Your task to perform on an android device: turn on wifi Image 0: 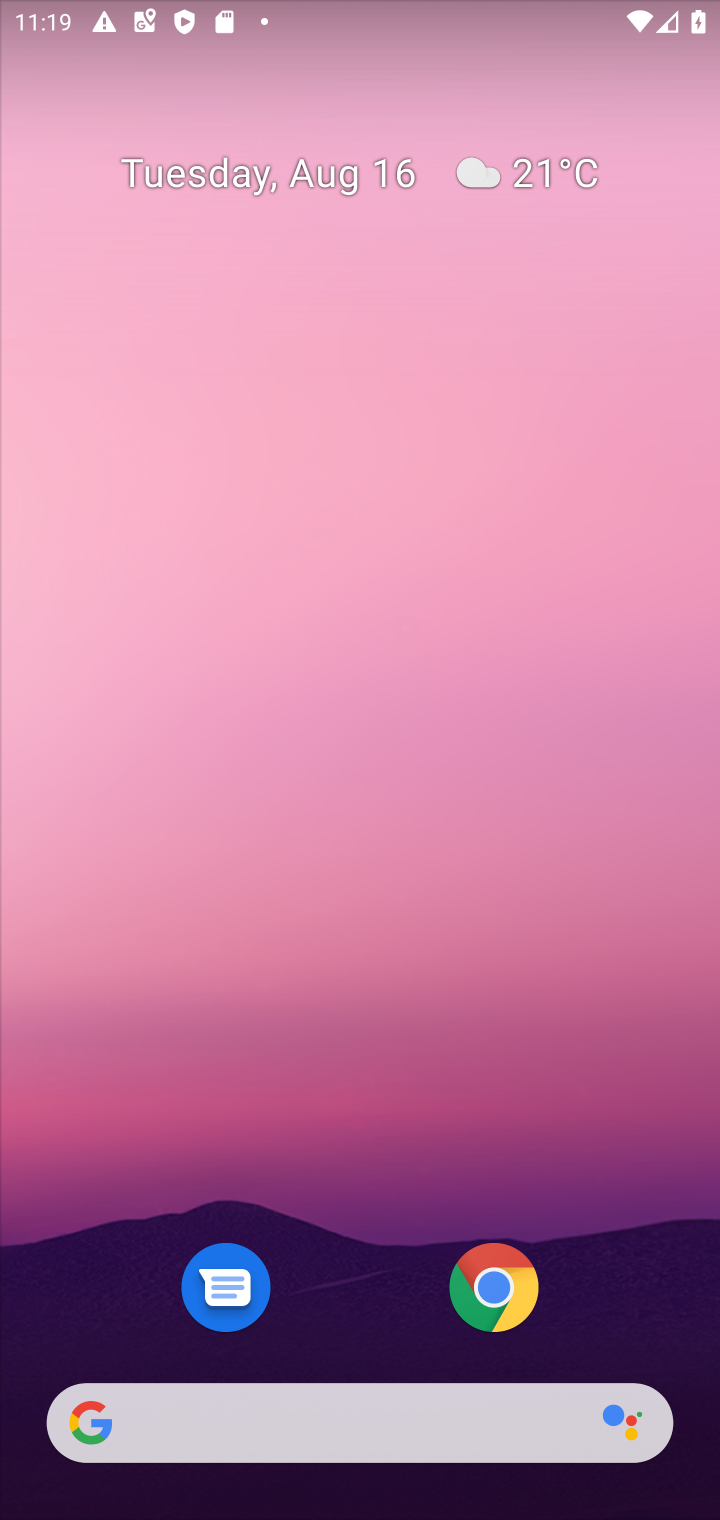
Step 0: drag from (633, 1311) to (548, 386)
Your task to perform on an android device: turn on wifi Image 1: 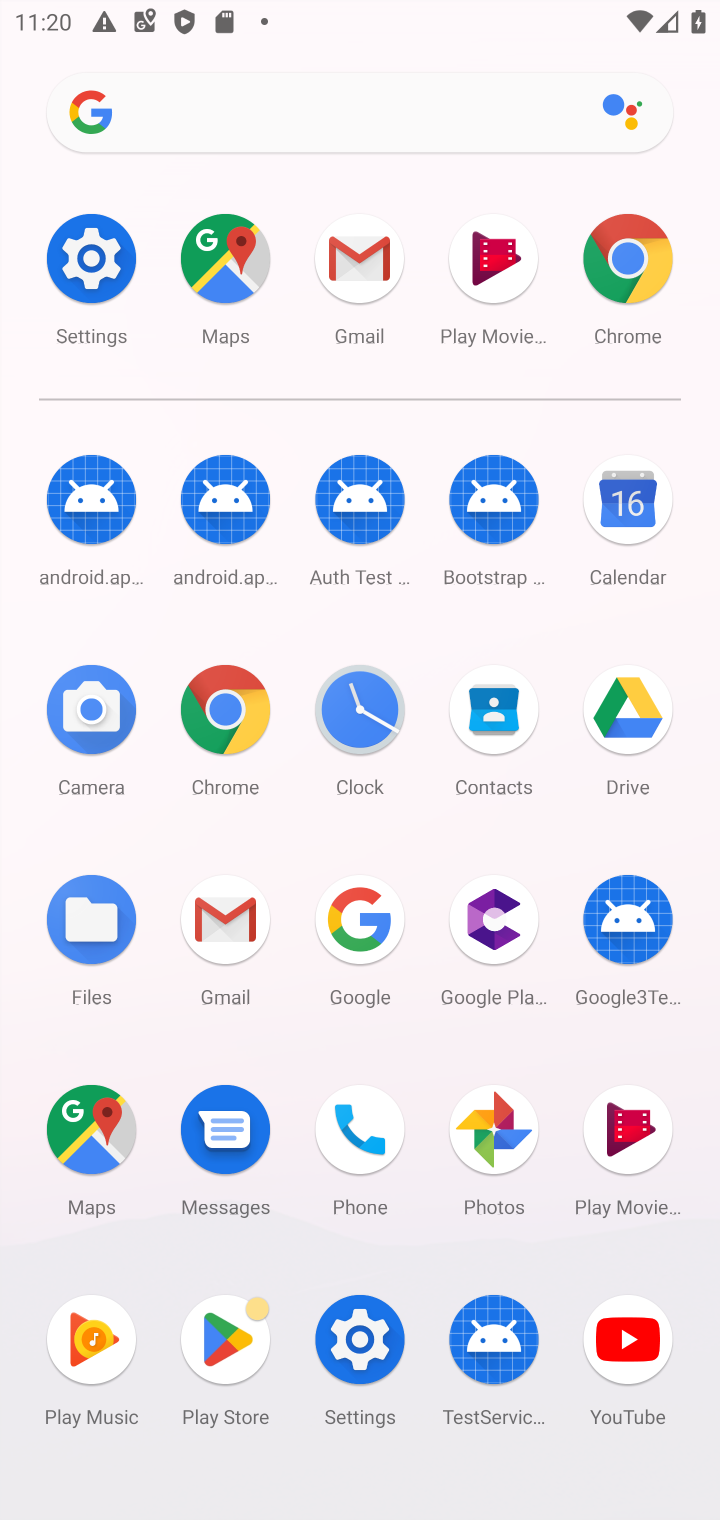
Step 1: click (359, 1336)
Your task to perform on an android device: turn on wifi Image 2: 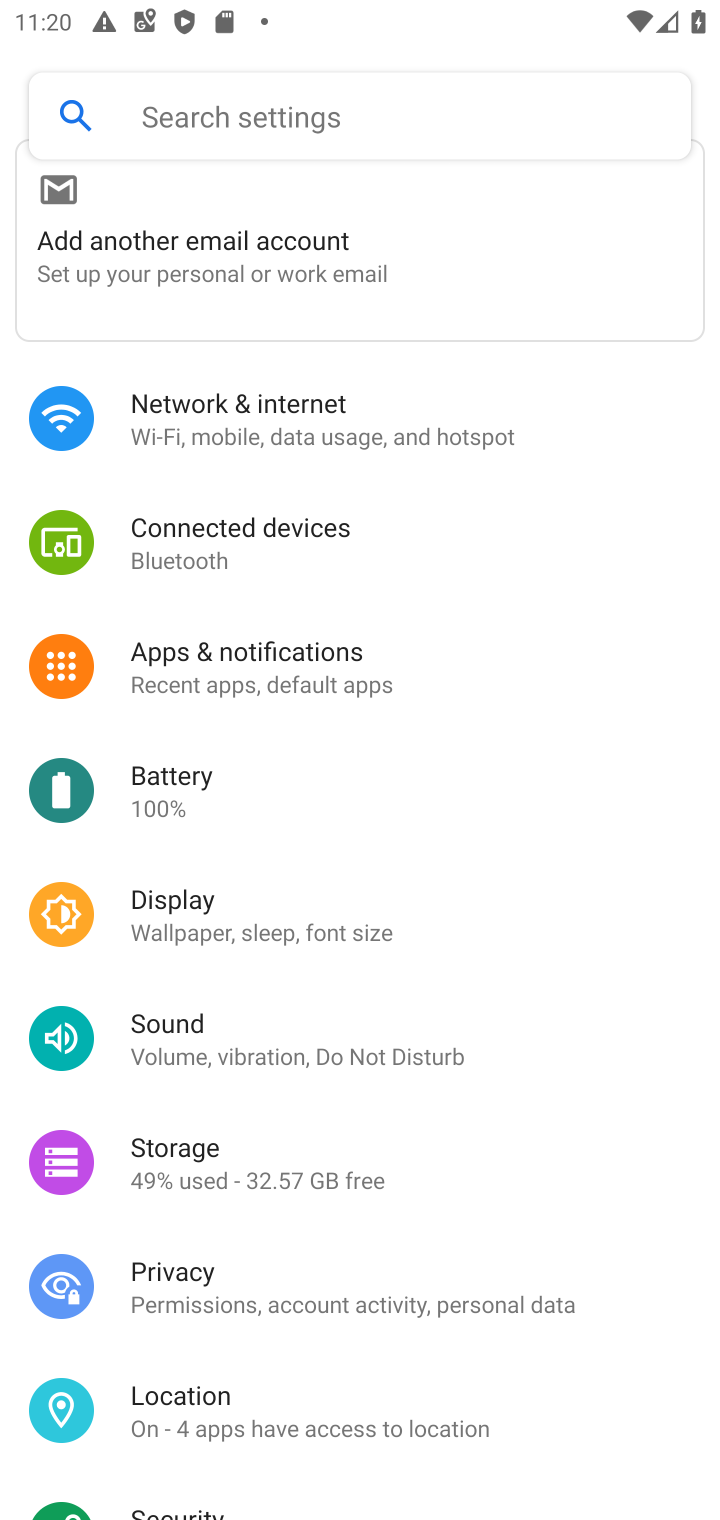
Step 2: click (220, 406)
Your task to perform on an android device: turn on wifi Image 3: 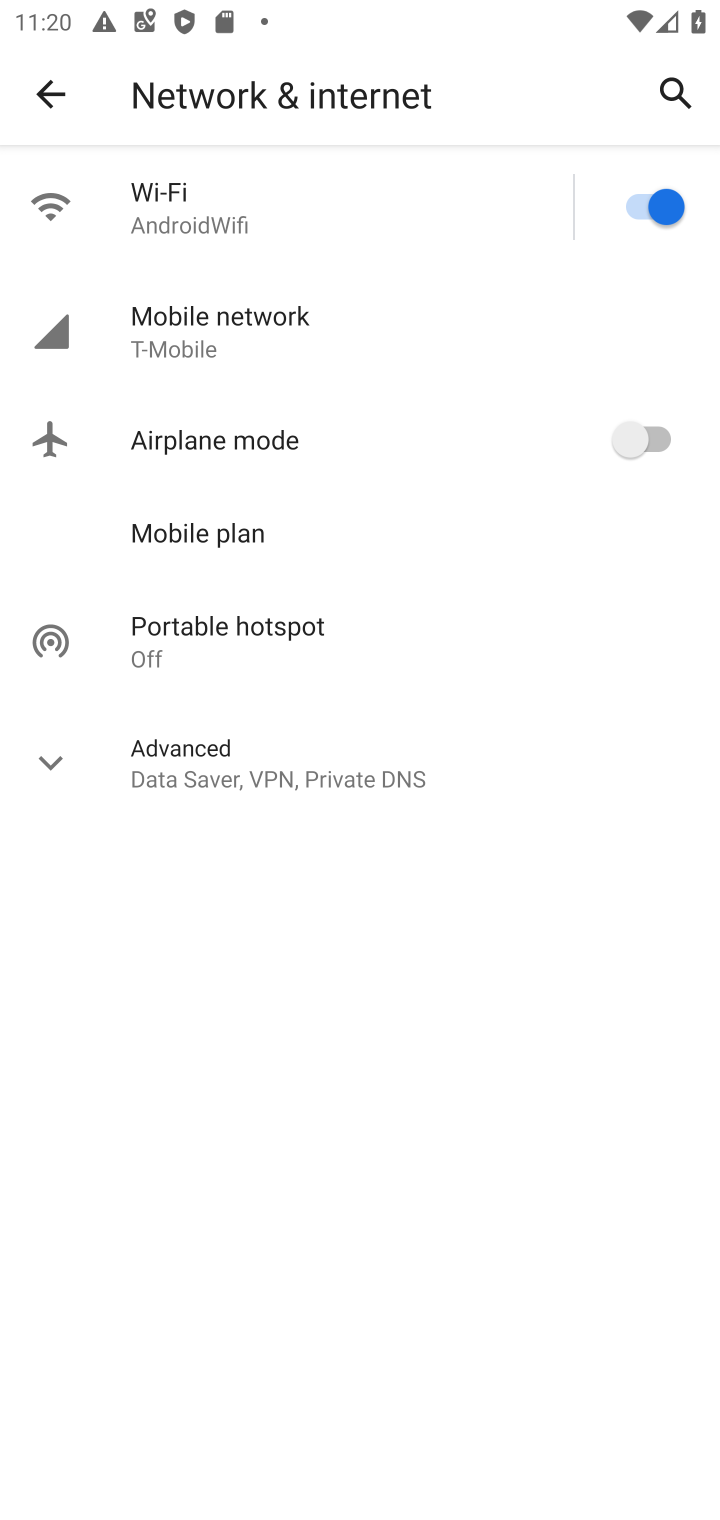
Step 3: task complete